Your task to perform on an android device: turn off priority inbox in the gmail app Image 0: 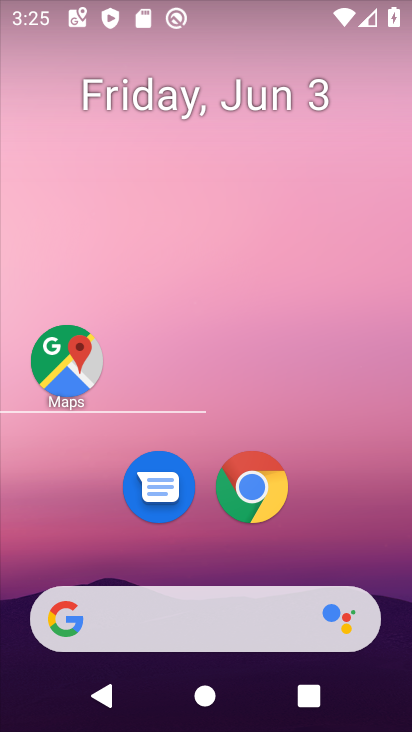
Step 0: drag from (266, 203) to (290, 278)
Your task to perform on an android device: turn off priority inbox in the gmail app Image 1: 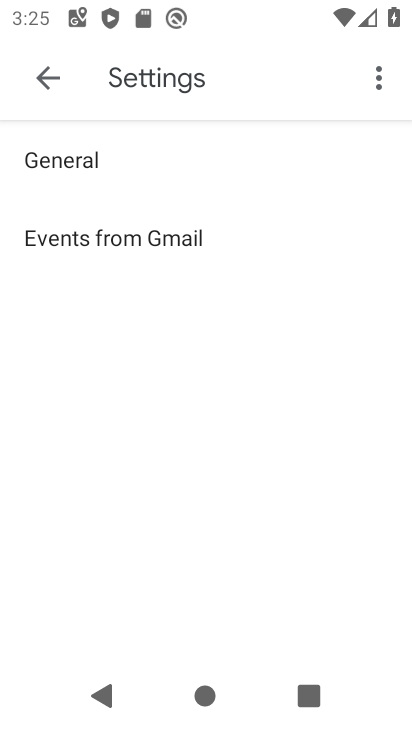
Step 1: drag from (271, 457) to (263, 171)
Your task to perform on an android device: turn off priority inbox in the gmail app Image 2: 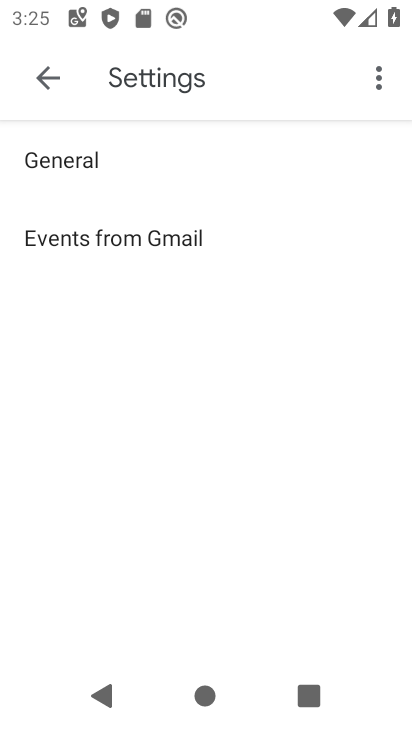
Step 2: drag from (269, 612) to (337, 190)
Your task to perform on an android device: turn off priority inbox in the gmail app Image 3: 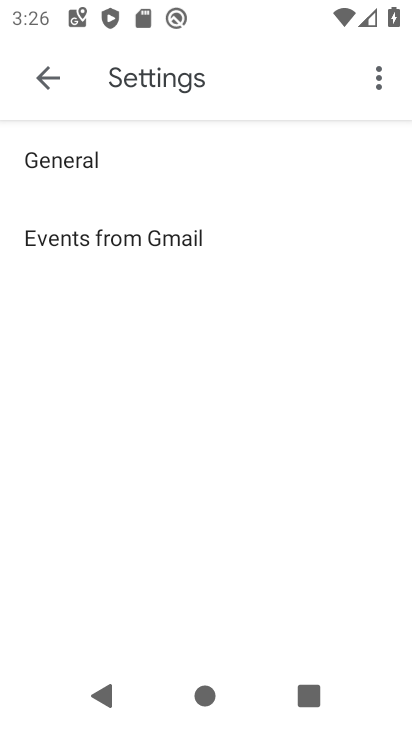
Step 3: drag from (166, 607) to (215, 138)
Your task to perform on an android device: turn off priority inbox in the gmail app Image 4: 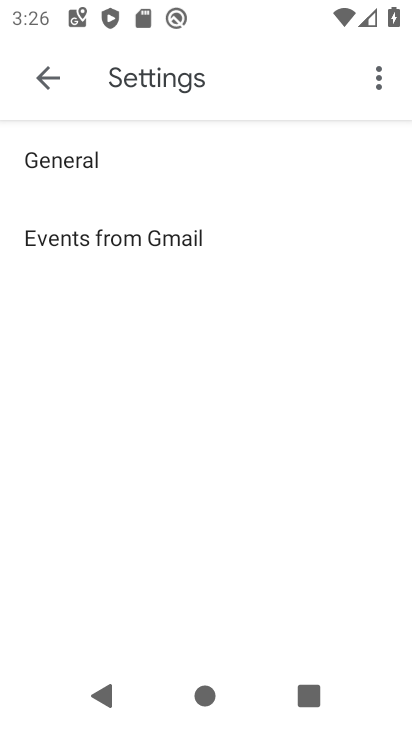
Step 4: drag from (216, 535) to (216, 146)
Your task to perform on an android device: turn off priority inbox in the gmail app Image 5: 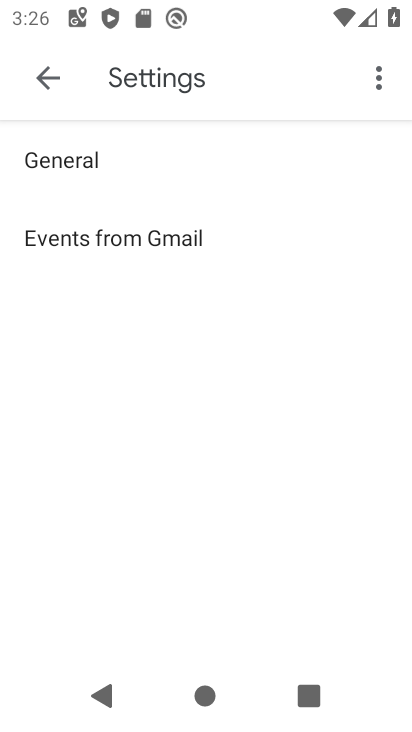
Step 5: press home button
Your task to perform on an android device: turn off priority inbox in the gmail app Image 6: 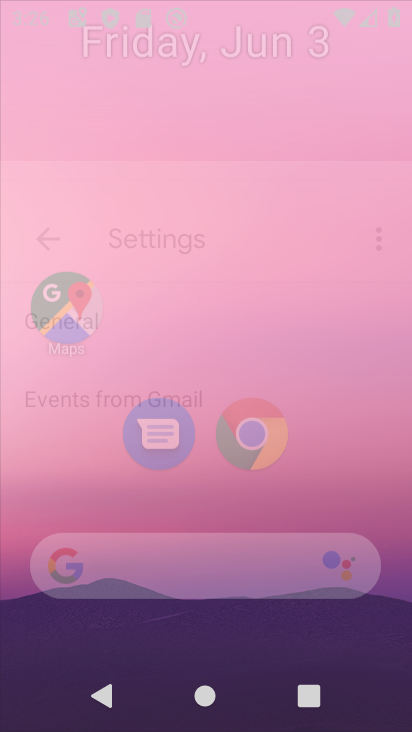
Step 6: drag from (125, 632) to (224, 4)
Your task to perform on an android device: turn off priority inbox in the gmail app Image 7: 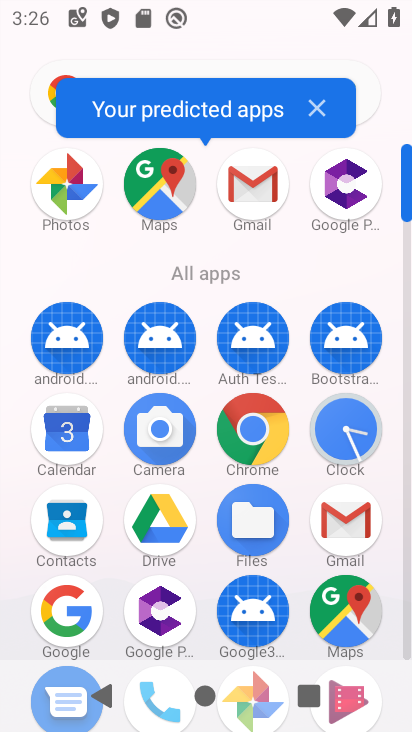
Step 7: click (348, 504)
Your task to perform on an android device: turn off priority inbox in the gmail app Image 8: 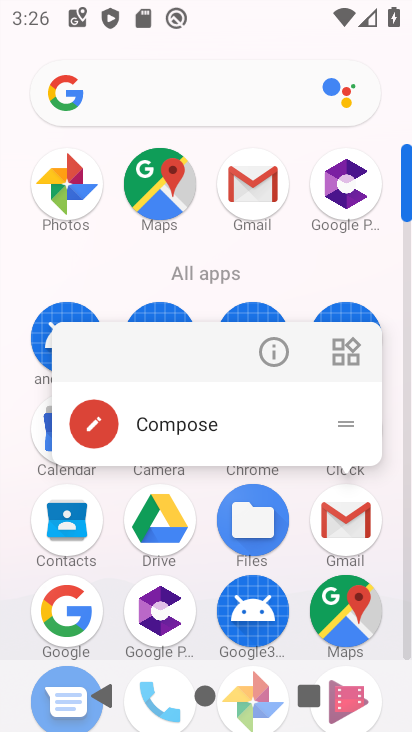
Step 8: click (263, 338)
Your task to perform on an android device: turn off priority inbox in the gmail app Image 9: 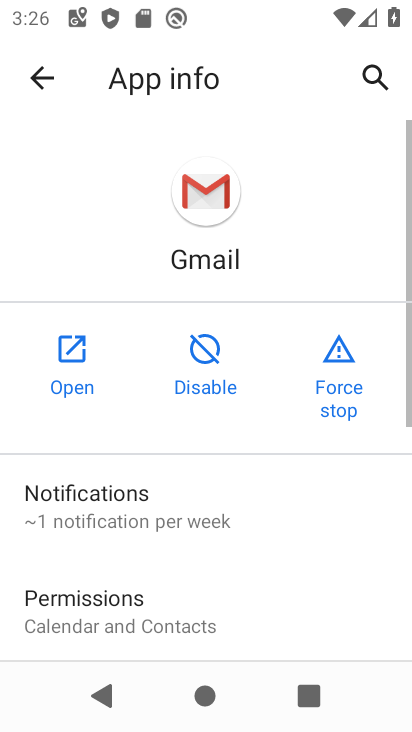
Step 9: click (86, 354)
Your task to perform on an android device: turn off priority inbox in the gmail app Image 10: 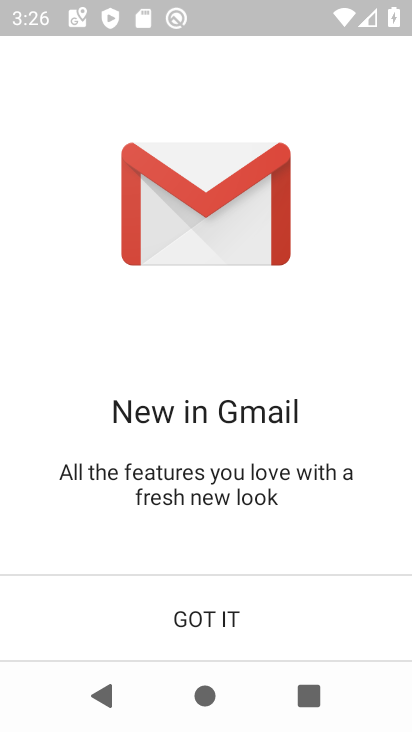
Step 10: click (204, 631)
Your task to perform on an android device: turn off priority inbox in the gmail app Image 11: 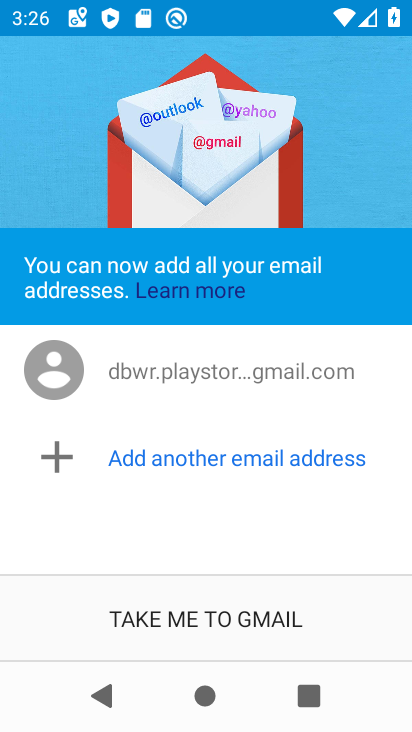
Step 11: click (205, 606)
Your task to perform on an android device: turn off priority inbox in the gmail app Image 12: 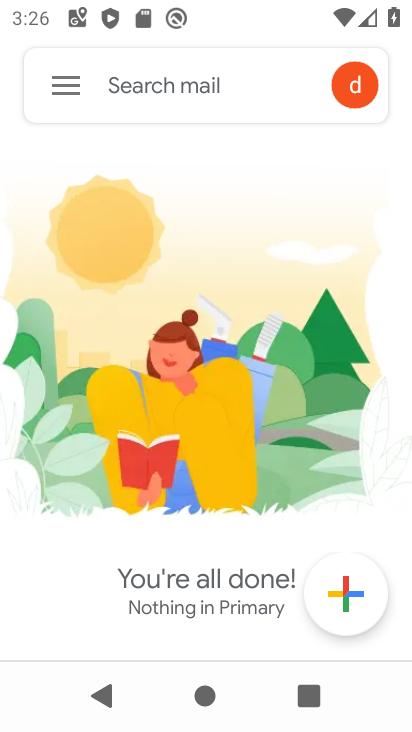
Step 12: click (67, 93)
Your task to perform on an android device: turn off priority inbox in the gmail app Image 13: 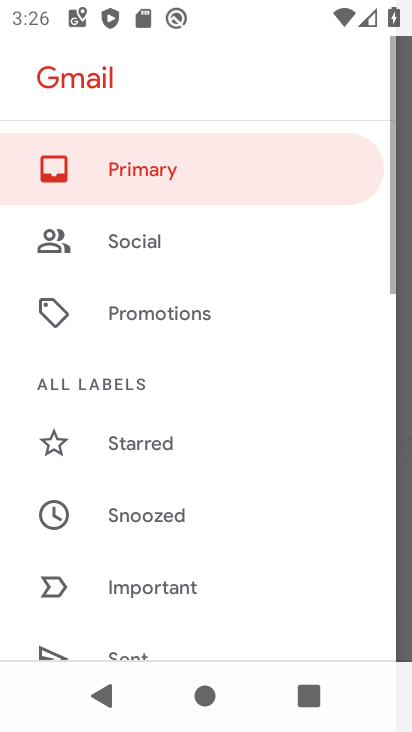
Step 13: drag from (202, 563) to (196, 160)
Your task to perform on an android device: turn off priority inbox in the gmail app Image 14: 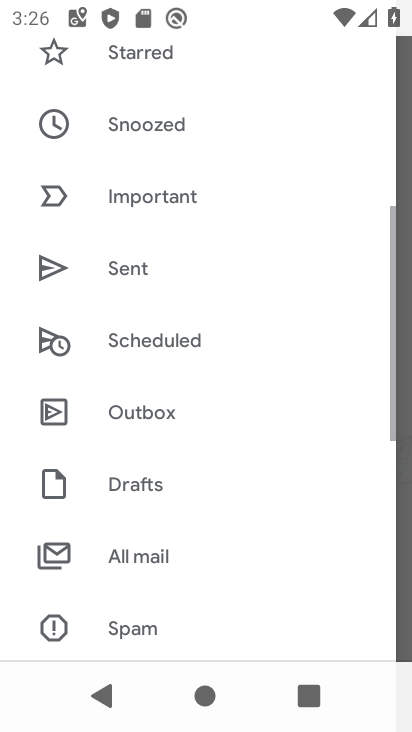
Step 14: drag from (274, 488) to (268, 173)
Your task to perform on an android device: turn off priority inbox in the gmail app Image 15: 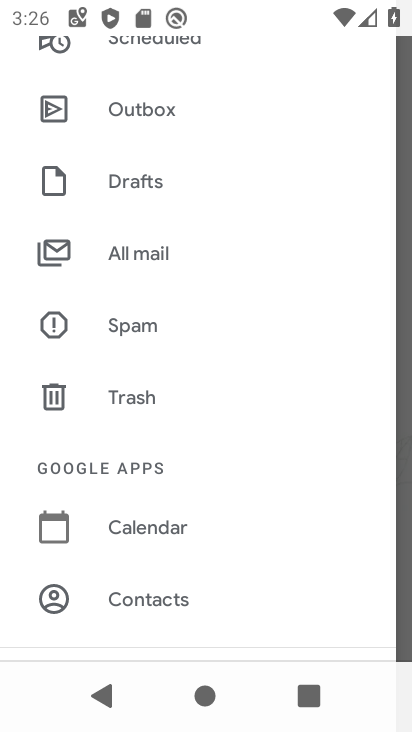
Step 15: drag from (165, 446) to (228, 4)
Your task to perform on an android device: turn off priority inbox in the gmail app Image 16: 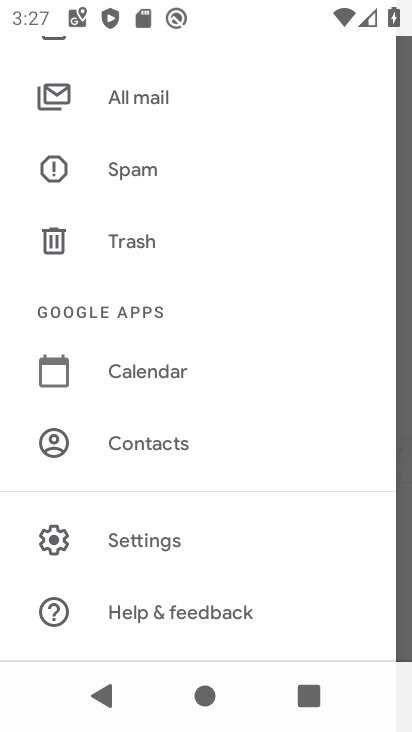
Step 16: click (159, 543)
Your task to perform on an android device: turn off priority inbox in the gmail app Image 17: 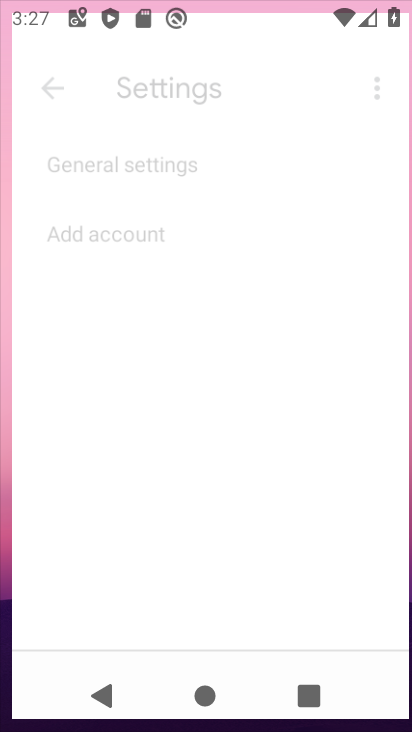
Step 17: drag from (214, 478) to (182, 10)
Your task to perform on an android device: turn off priority inbox in the gmail app Image 18: 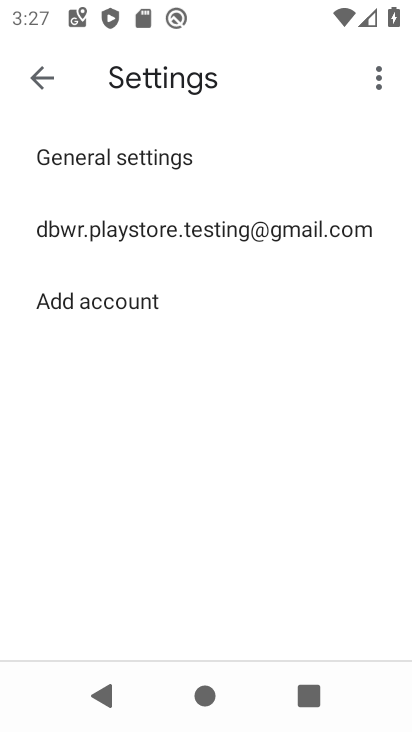
Step 18: click (171, 211)
Your task to perform on an android device: turn off priority inbox in the gmail app Image 19: 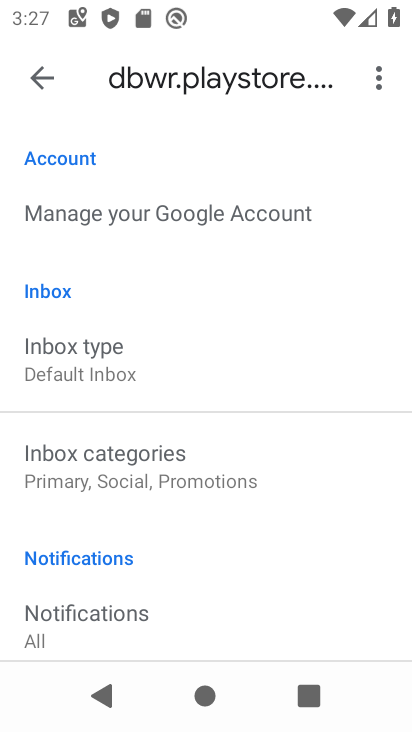
Step 19: click (145, 378)
Your task to perform on an android device: turn off priority inbox in the gmail app Image 20: 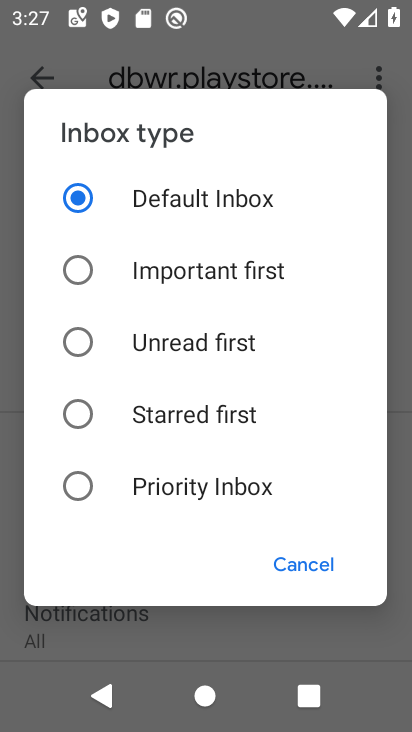
Step 20: task complete